Your task to perform on an android device: Open maps Image 0: 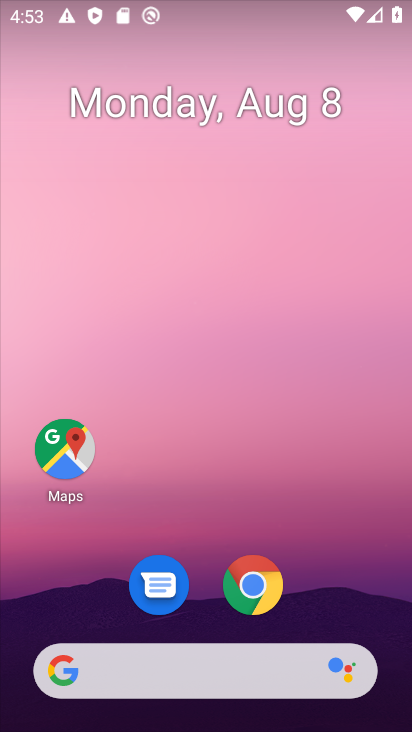
Step 0: click (67, 449)
Your task to perform on an android device: Open maps Image 1: 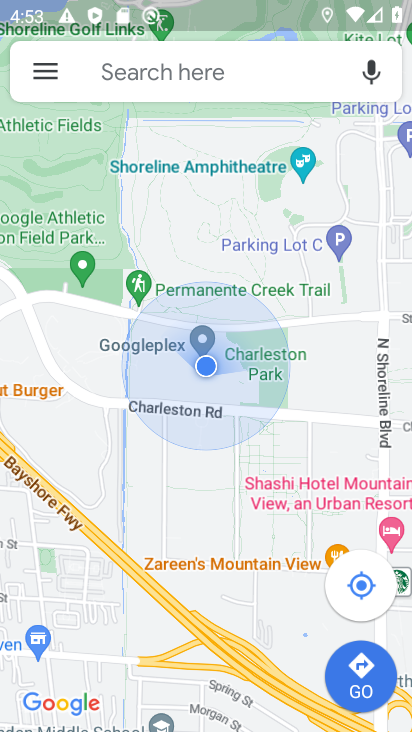
Step 1: task complete